Your task to perform on an android device: Open the web browser Image 0: 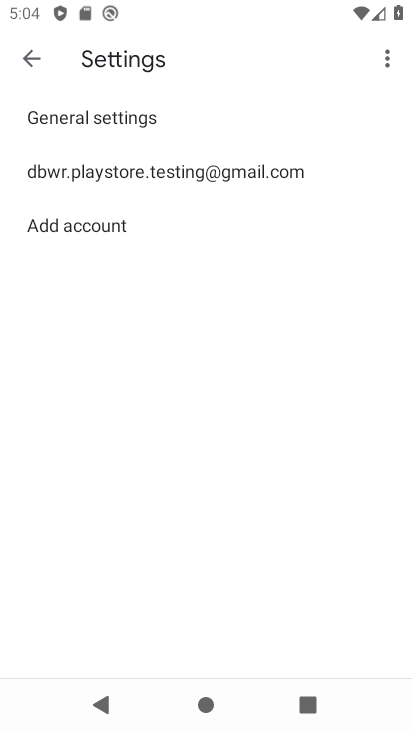
Step 0: press home button
Your task to perform on an android device: Open the web browser Image 1: 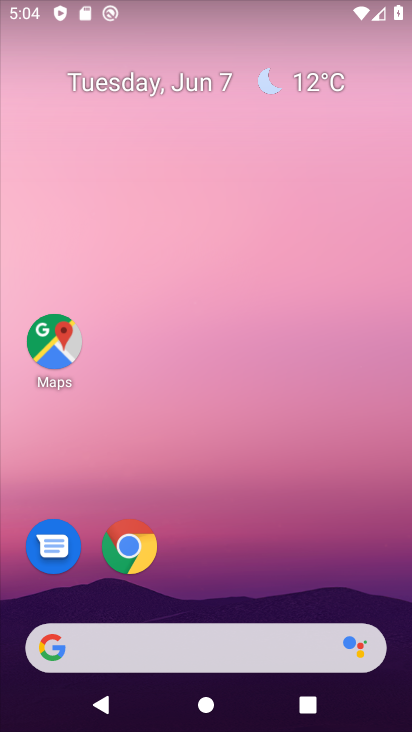
Step 1: click (126, 537)
Your task to perform on an android device: Open the web browser Image 2: 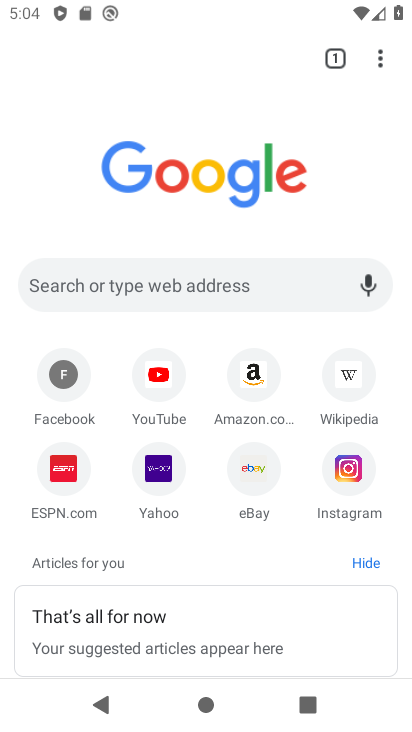
Step 2: click (171, 279)
Your task to perform on an android device: Open the web browser Image 3: 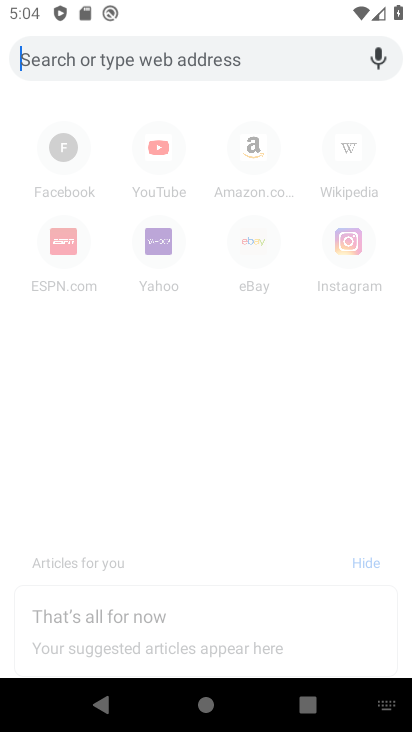
Step 3: type " web browser"
Your task to perform on an android device: Open the web browser Image 4: 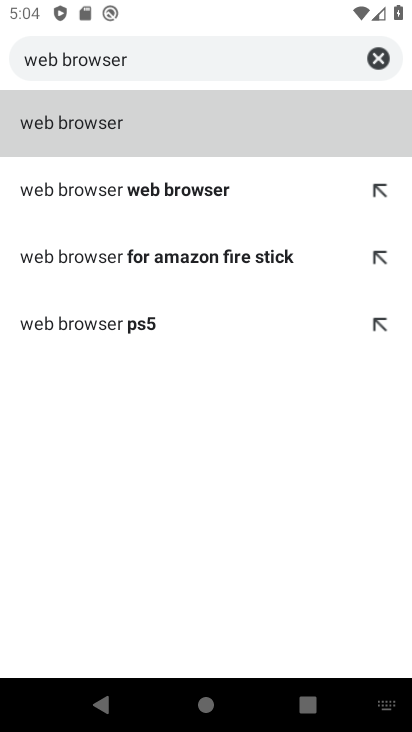
Step 4: click (101, 125)
Your task to perform on an android device: Open the web browser Image 5: 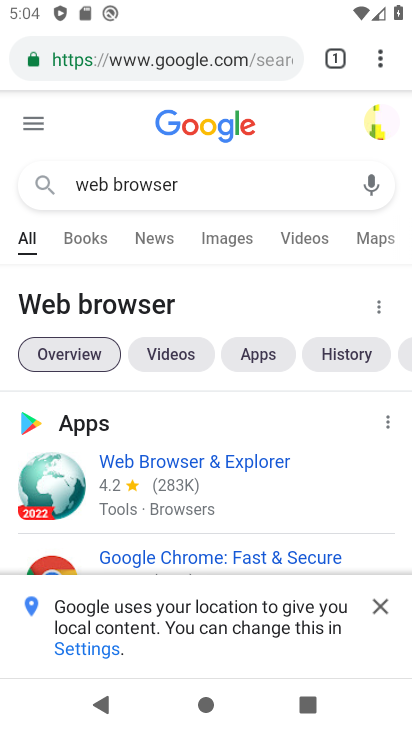
Step 5: task complete